Your task to perform on an android device: toggle location history Image 0: 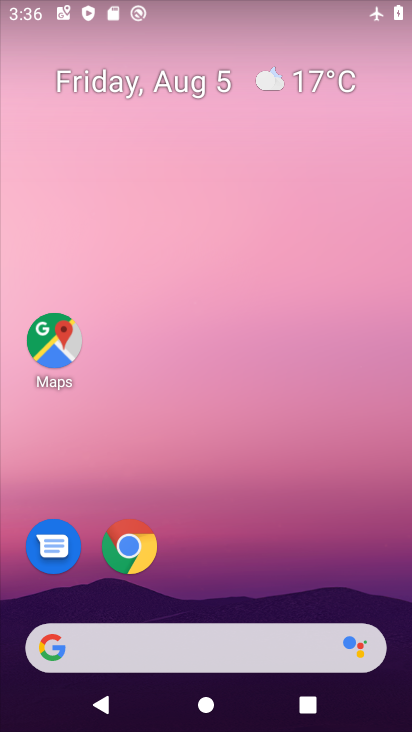
Step 0: press home button
Your task to perform on an android device: toggle location history Image 1: 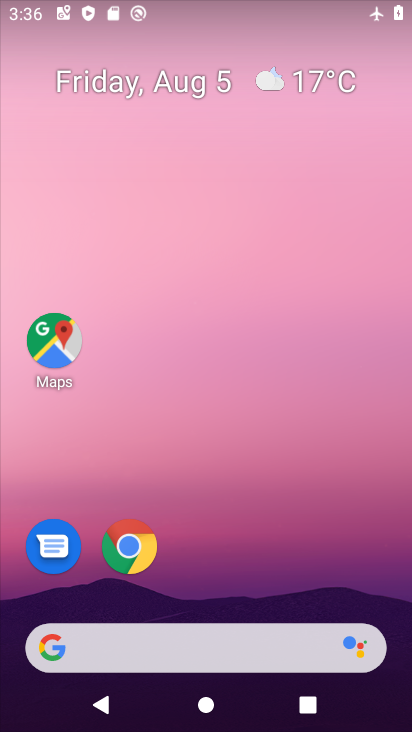
Step 1: drag from (305, 588) to (362, 109)
Your task to perform on an android device: toggle location history Image 2: 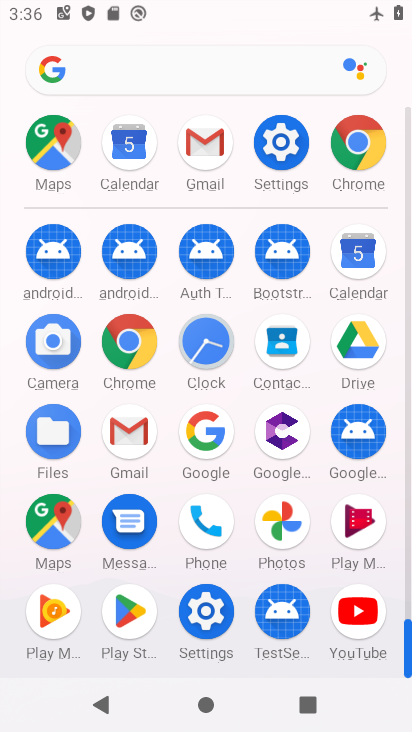
Step 2: click (280, 136)
Your task to perform on an android device: toggle location history Image 3: 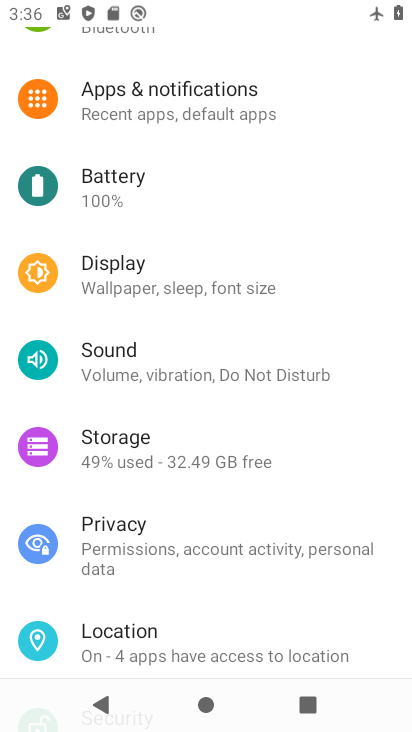
Step 3: drag from (334, 206) to (373, 445)
Your task to perform on an android device: toggle location history Image 4: 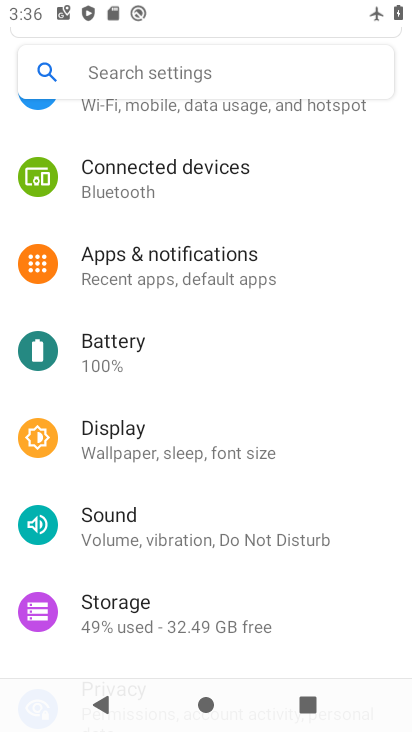
Step 4: drag from (326, 195) to (337, 405)
Your task to perform on an android device: toggle location history Image 5: 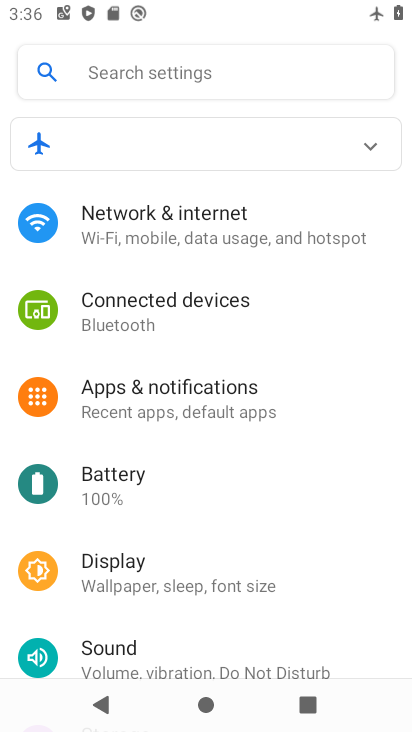
Step 5: drag from (331, 471) to (339, 324)
Your task to perform on an android device: toggle location history Image 6: 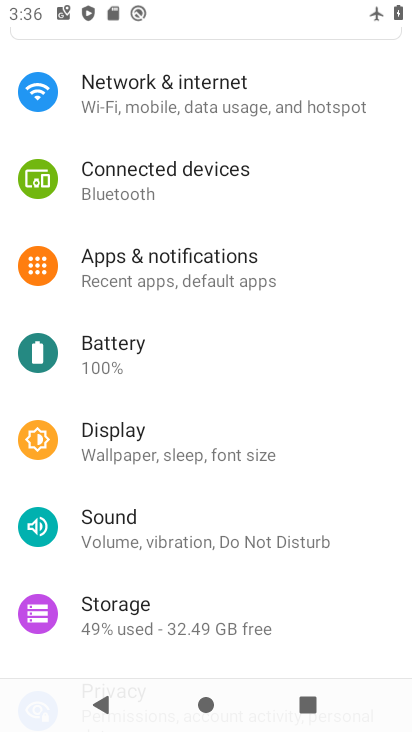
Step 6: drag from (324, 445) to (326, 290)
Your task to perform on an android device: toggle location history Image 7: 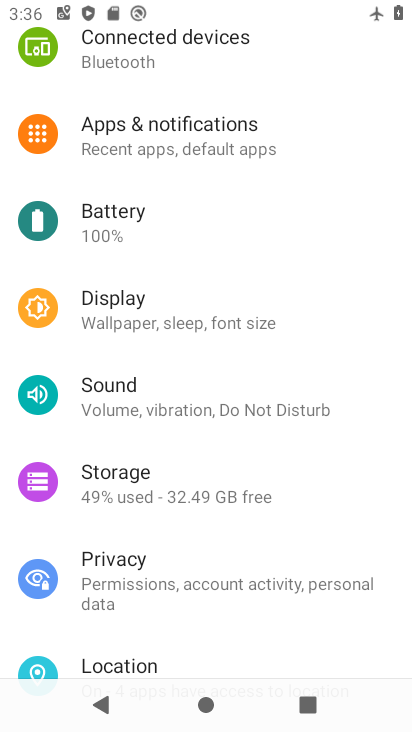
Step 7: drag from (323, 432) to (321, 313)
Your task to perform on an android device: toggle location history Image 8: 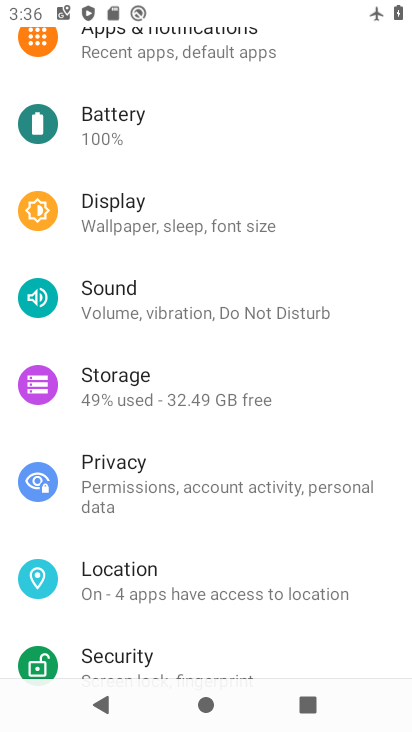
Step 8: drag from (319, 432) to (328, 310)
Your task to perform on an android device: toggle location history Image 9: 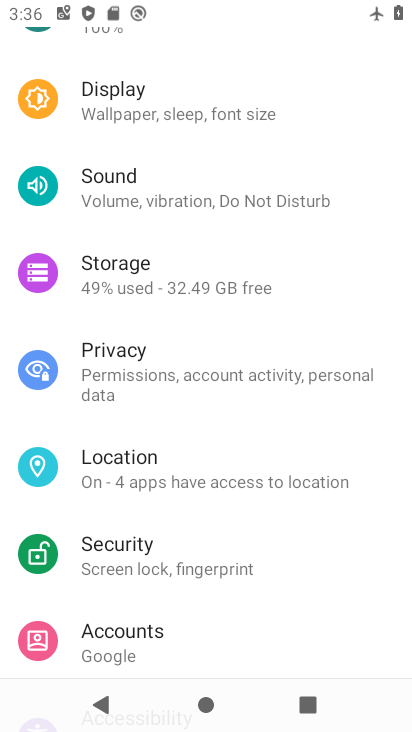
Step 9: drag from (335, 455) to (351, 285)
Your task to perform on an android device: toggle location history Image 10: 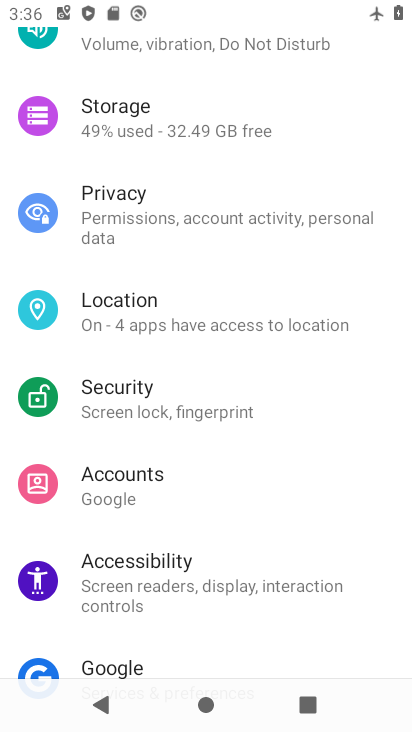
Step 10: click (297, 304)
Your task to perform on an android device: toggle location history Image 11: 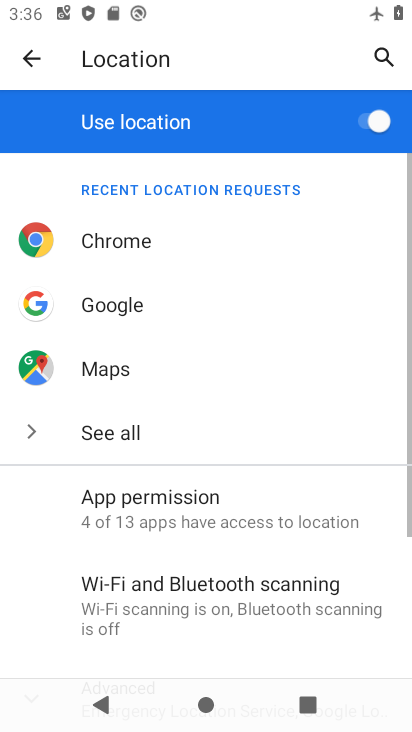
Step 11: drag from (297, 496) to (303, 308)
Your task to perform on an android device: toggle location history Image 12: 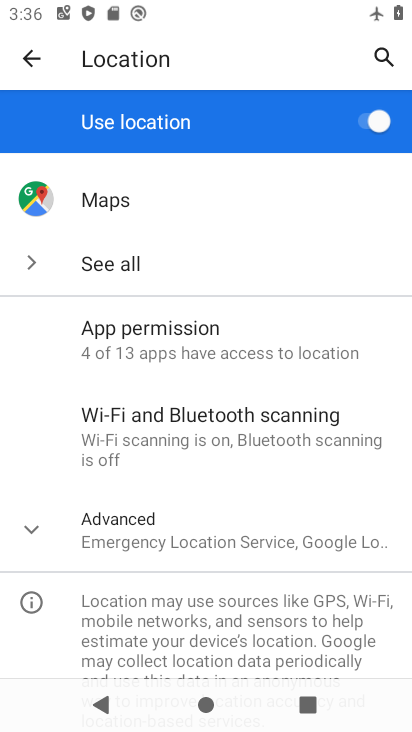
Step 12: click (308, 507)
Your task to perform on an android device: toggle location history Image 13: 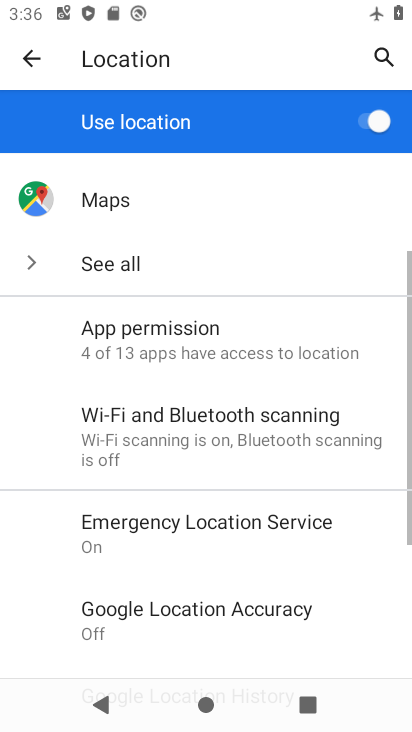
Step 13: drag from (323, 582) to (344, 381)
Your task to perform on an android device: toggle location history Image 14: 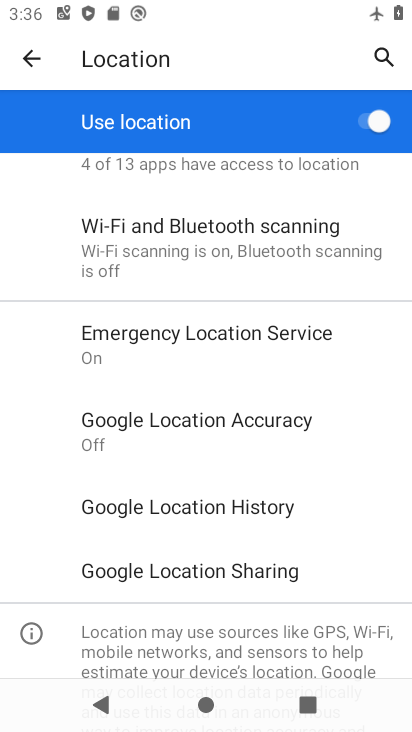
Step 14: drag from (348, 514) to (345, 389)
Your task to perform on an android device: toggle location history Image 15: 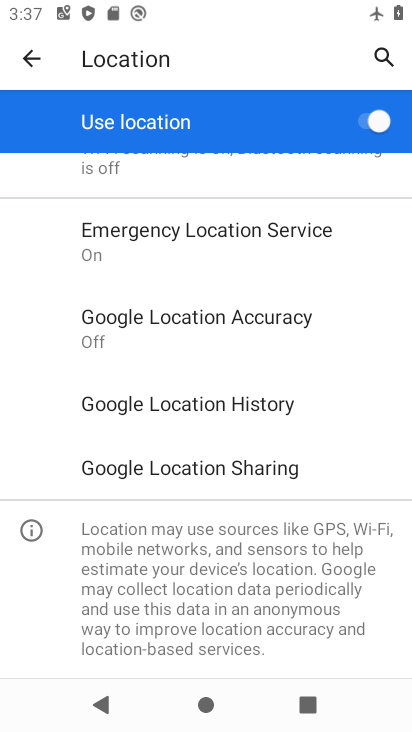
Step 15: click (213, 403)
Your task to perform on an android device: toggle location history Image 16: 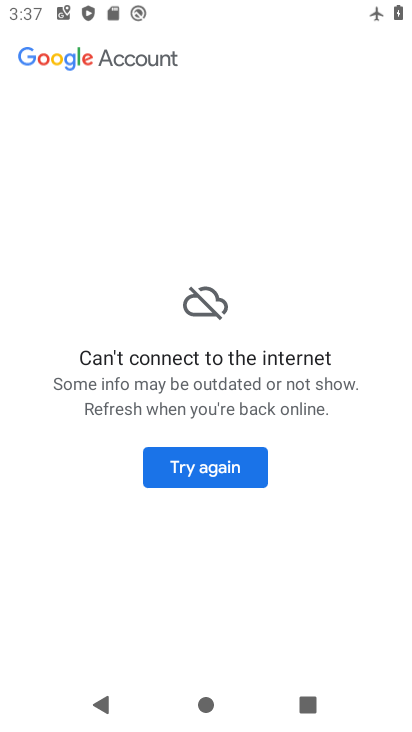
Step 16: task complete